Your task to perform on an android device: Show me popular videos on Youtube Image 0: 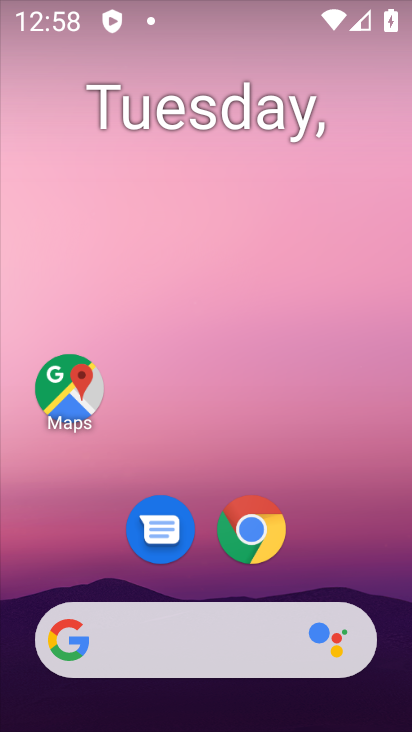
Step 0: drag from (181, 604) to (285, 138)
Your task to perform on an android device: Show me popular videos on Youtube Image 1: 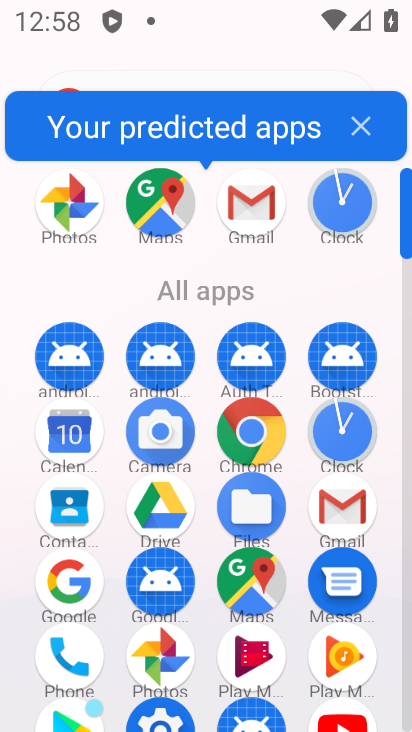
Step 1: drag from (208, 674) to (272, 391)
Your task to perform on an android device: Show me popular videos on Youtube Image 2: 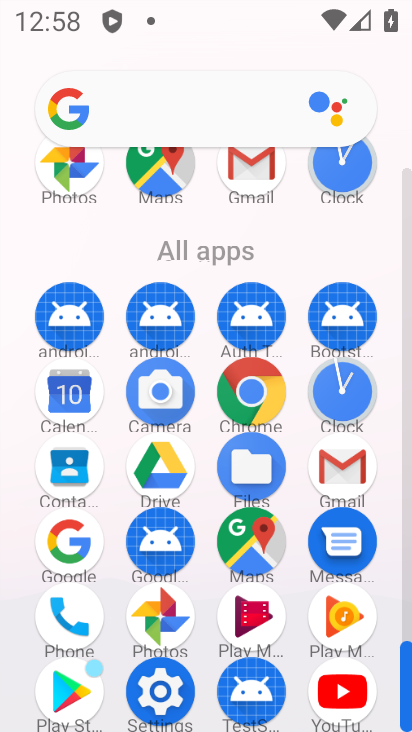
Step 2: click (352, 671)
Your task to perform on an android device: Show me popular videos on Youtube Image 3: 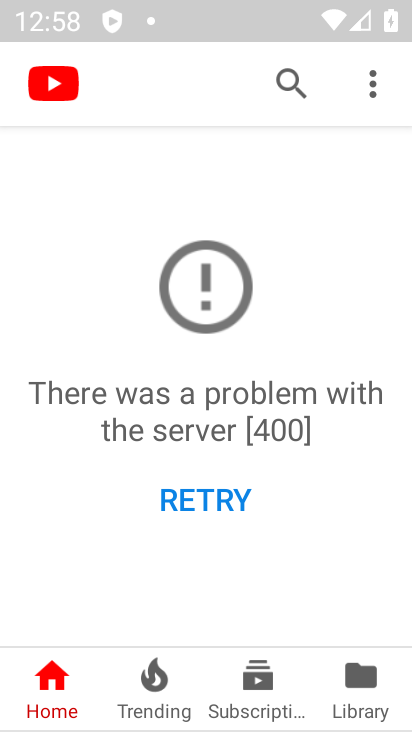
Step 3: click (373, 677)
Your task to perform on an android device: Show me popular videos on Youtube Image 4: 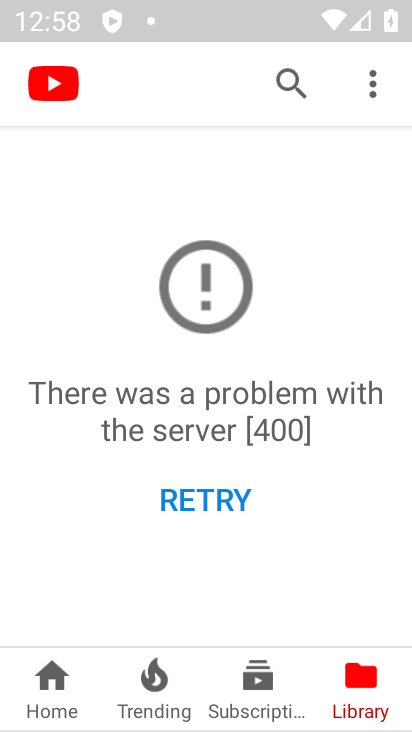
Step 4: click (373, 677)
Your task to perform on an android device: Show me popular videos on Youtube Image 5: 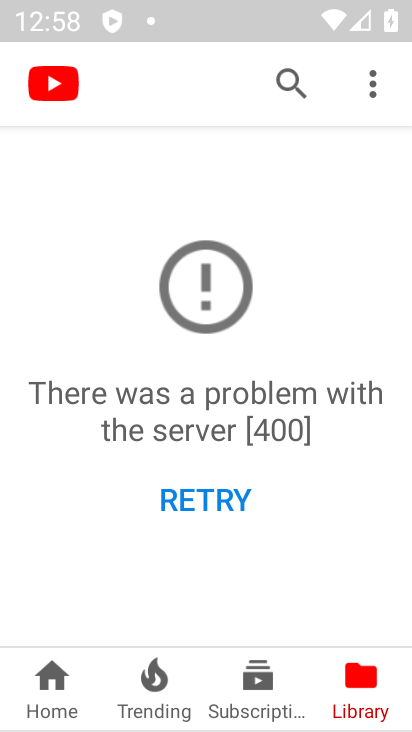
Step 5: task complete